Your task to perform on an android device: all mails in gmail Image 0: 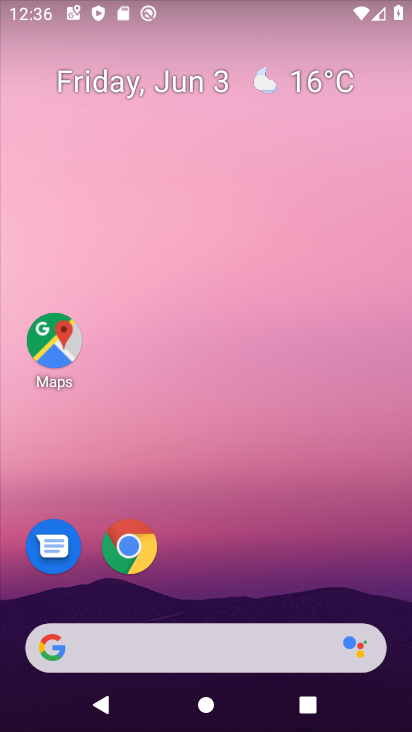
Step 0: drag from (251, 526) to (211, 194)
Your task to perform on an android device: all mails in gmail Image 1: 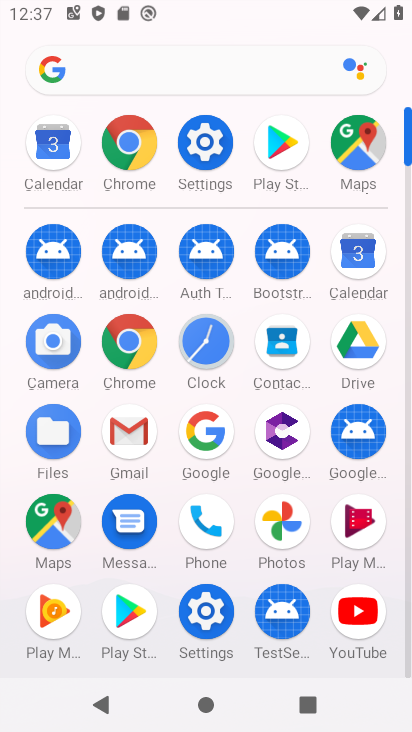
Step 1: click (125, 438)
Your task to perform on an android device: all mails in gmail Image 2: 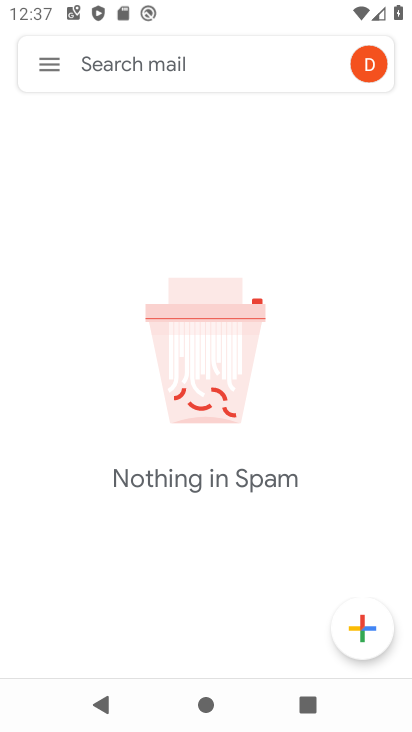
Step 2: click (48, 61)
Your task to perform on an android device: all mails in gmail Image 3: 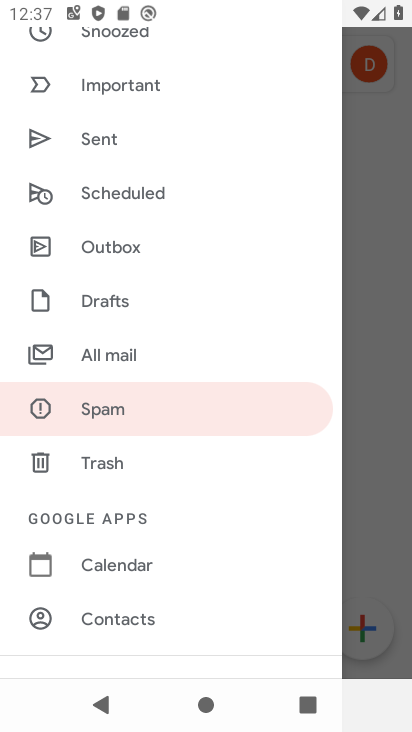
Step 3: click (110, 350)
Your task to perform on an android device: all mails in gmail Image 4: 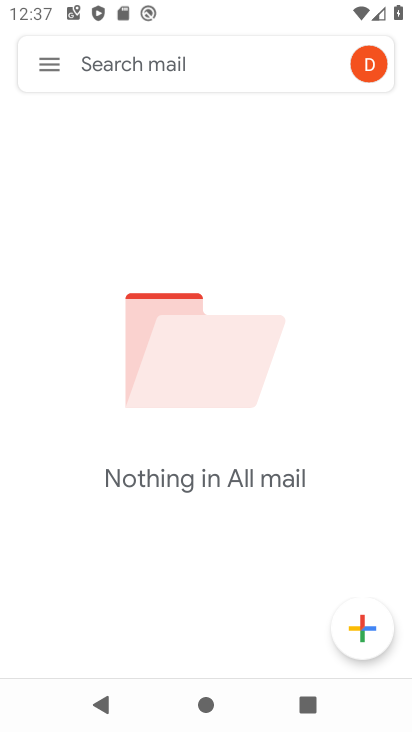
Step 4: task complete